Your task to perform on an android device: clear history in the chrome app Image 0: 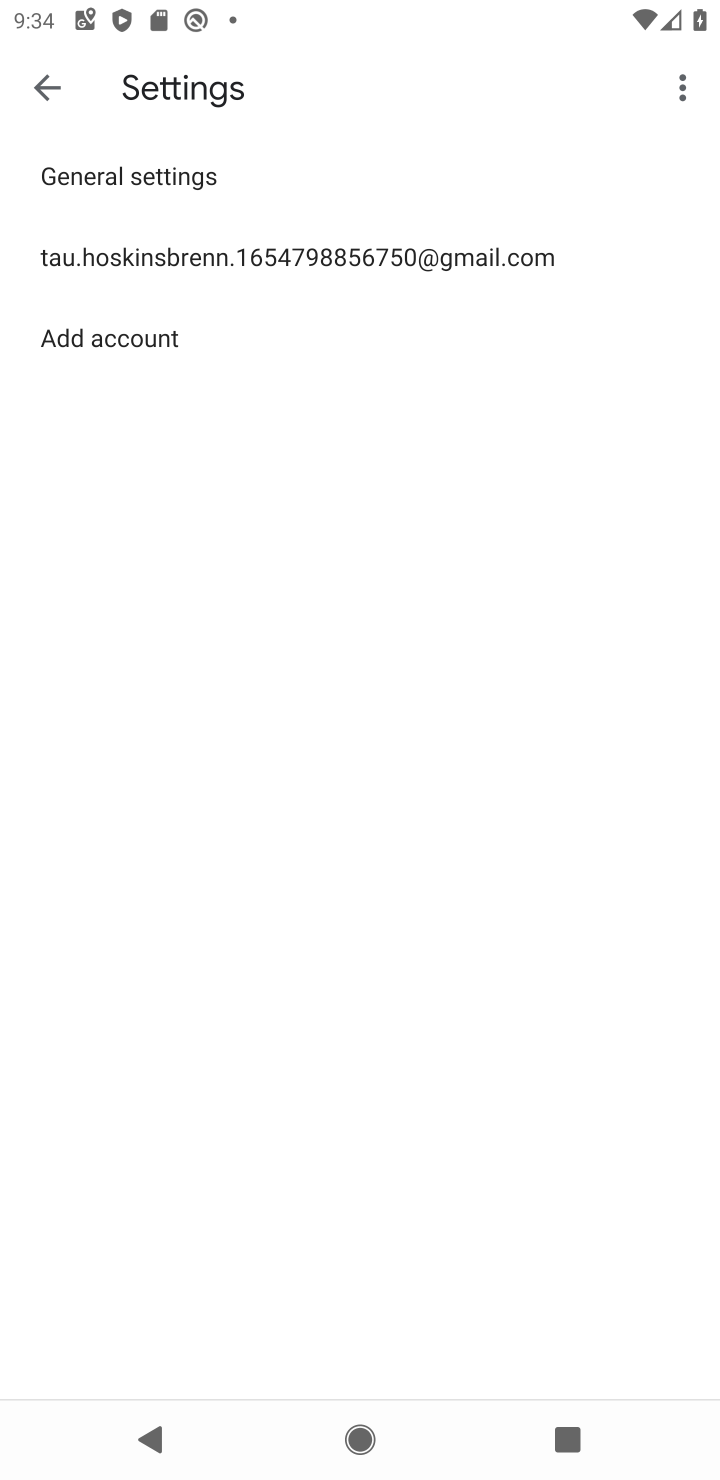
Step 0: press home button
Your task to perform on an android device: clear history in the chrome app Image 1: 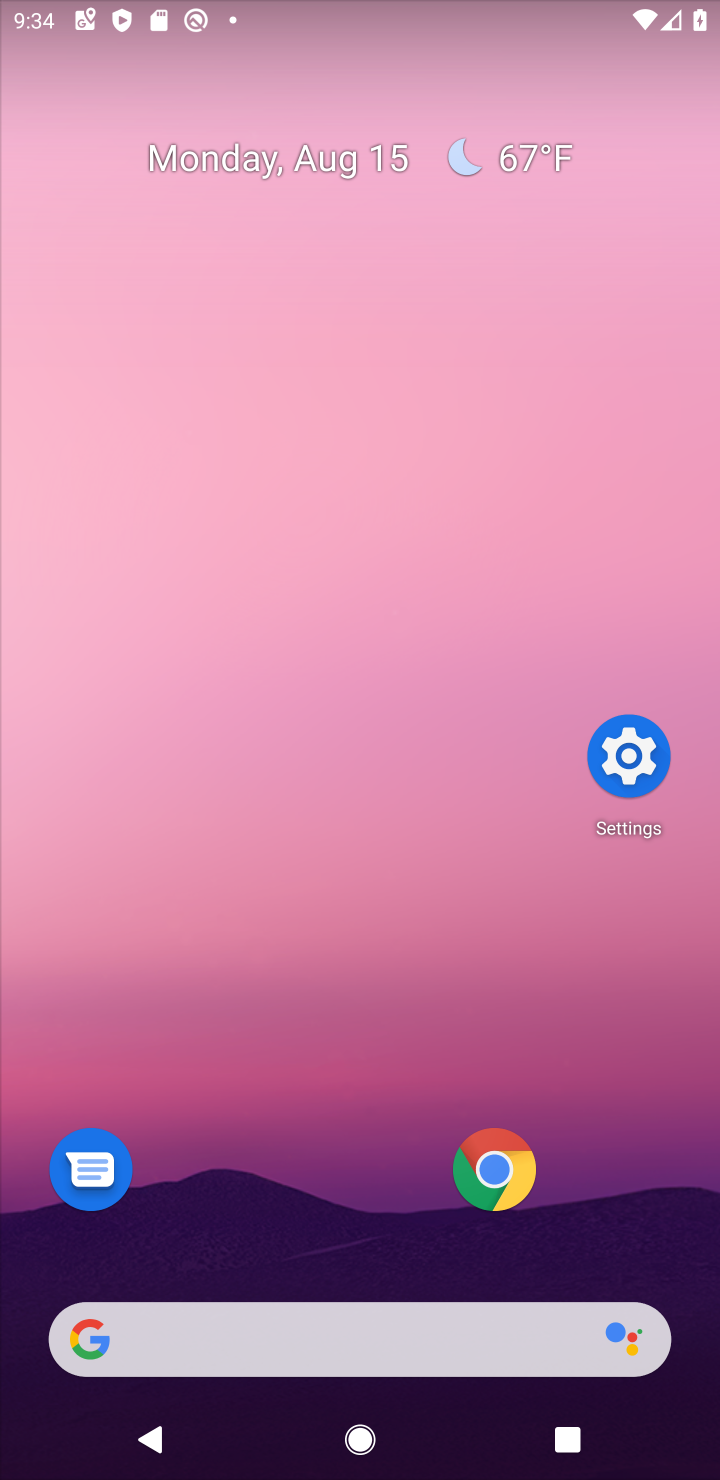
Step 1: click (485, 1159)
Your task to perform on an android device: clear history in the chrome app Image 2: 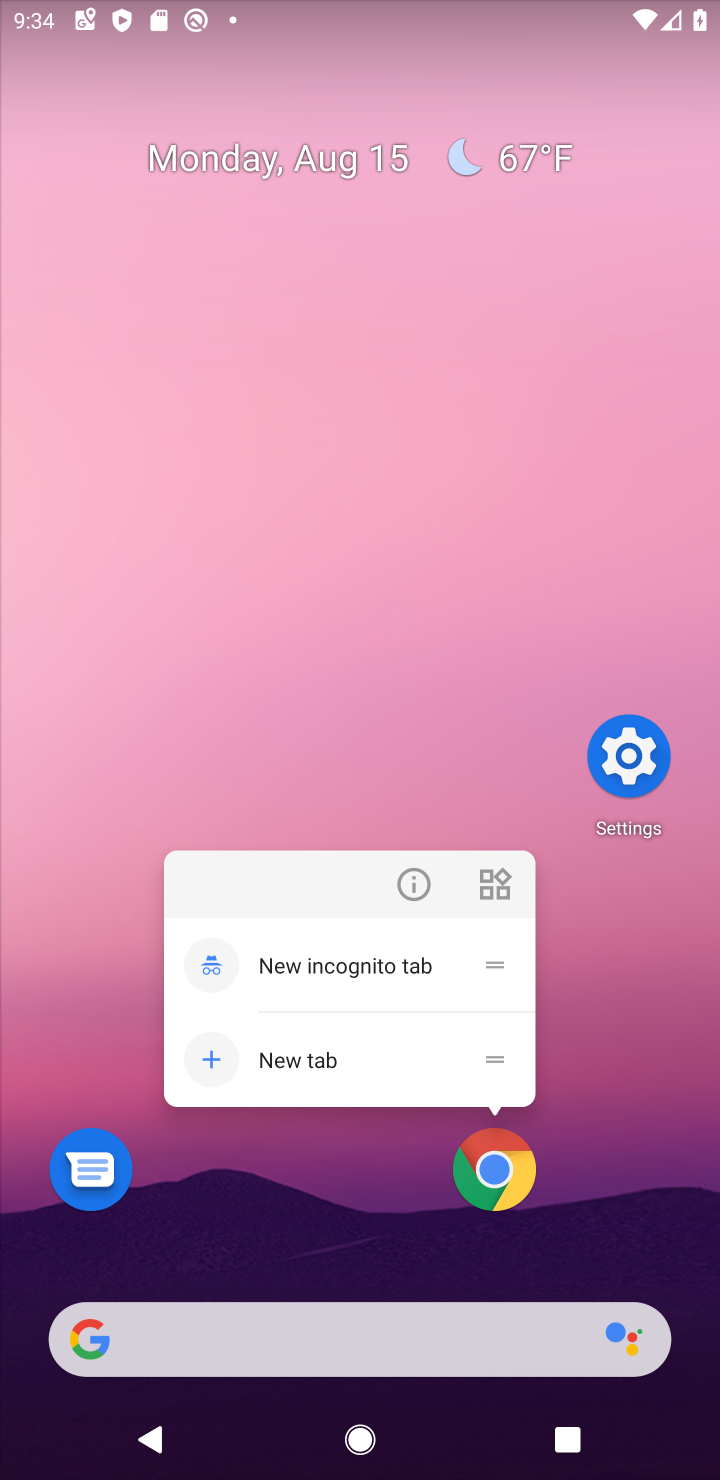
Step 2: click (492, 1163)
Your task to perform on an android device: clear history in the chrome app Image 3: 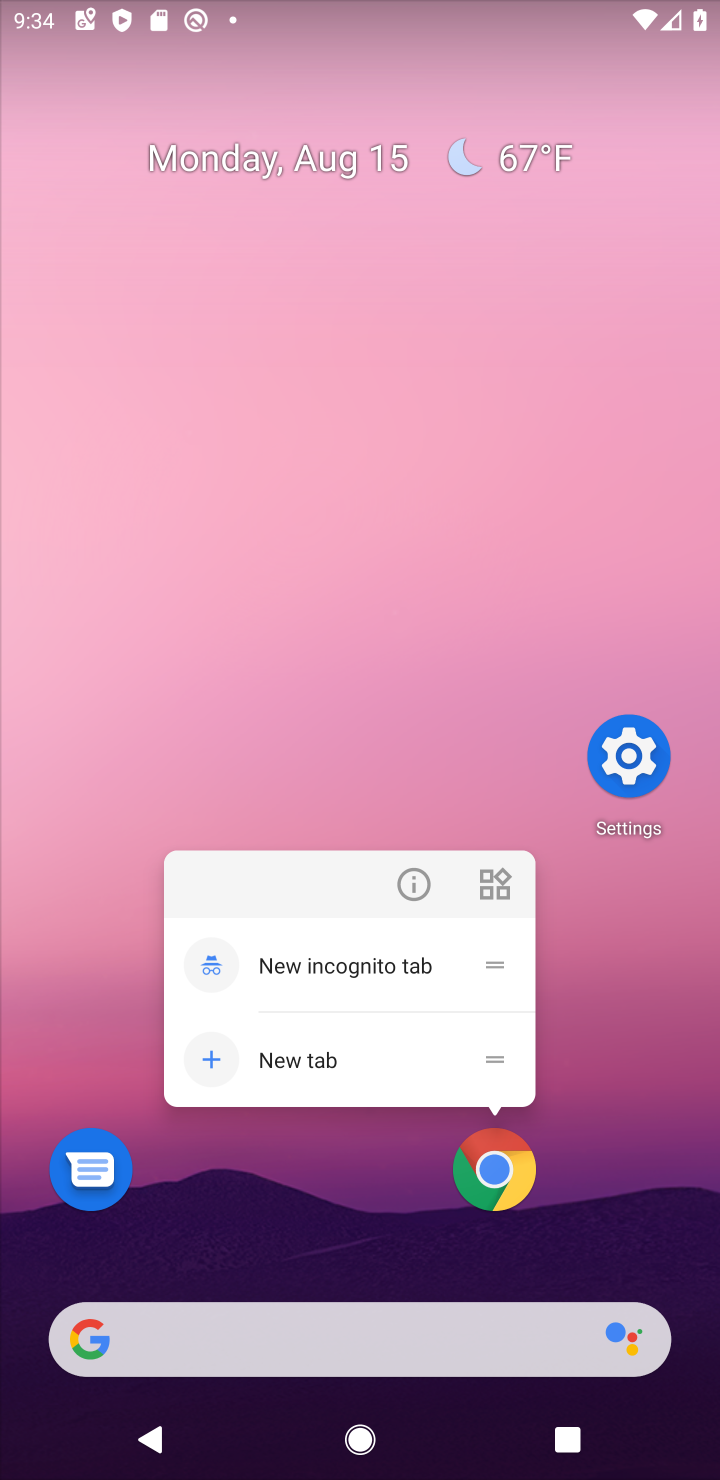
Step 3: click (492, 1160)
Your task to perform on an android device: clear history in the chrome app Image 4: 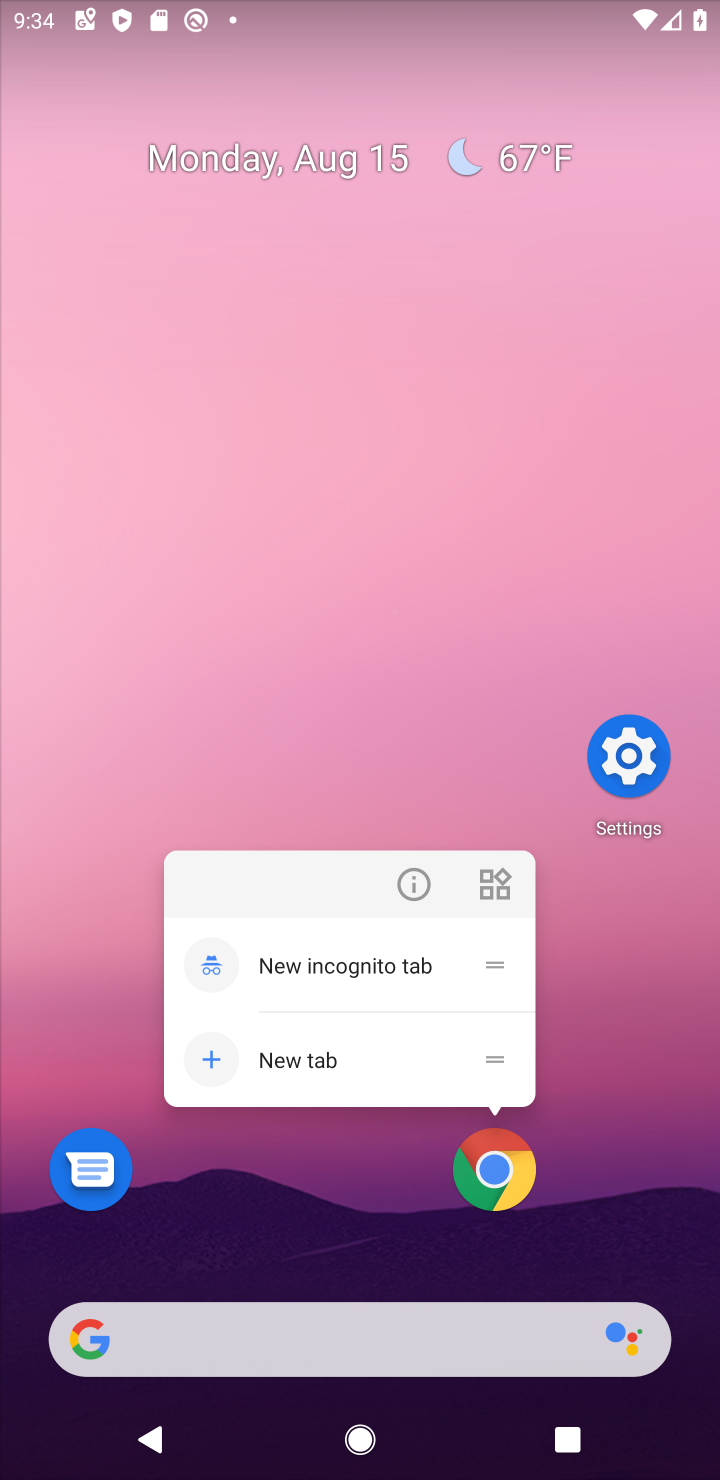
Step 4: click (492, 1163)
Your task to perform on an android device: clear history in the chrome app Image 5: 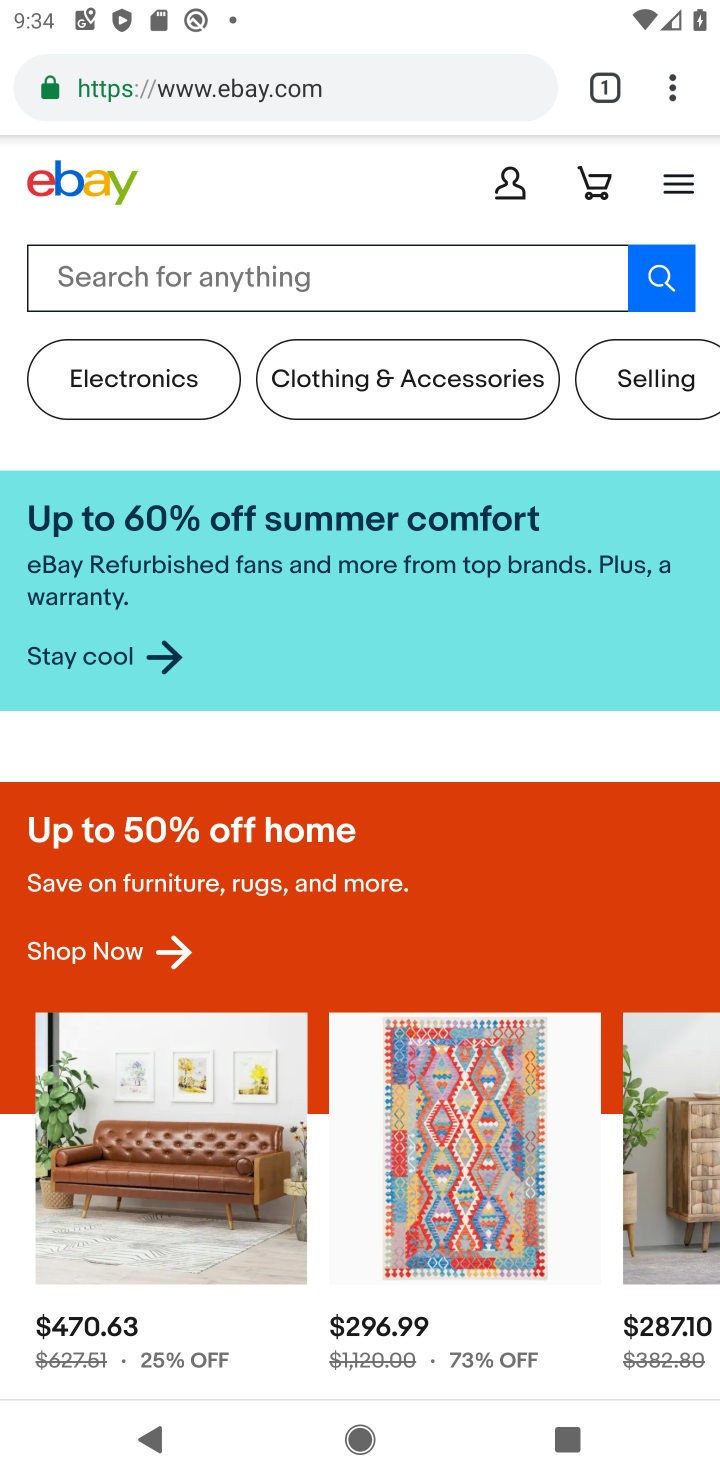
Step 5: drag from (676, 91) to (425, 485)
Your task to perform on an android device: clear history in the chrome app Image 6: 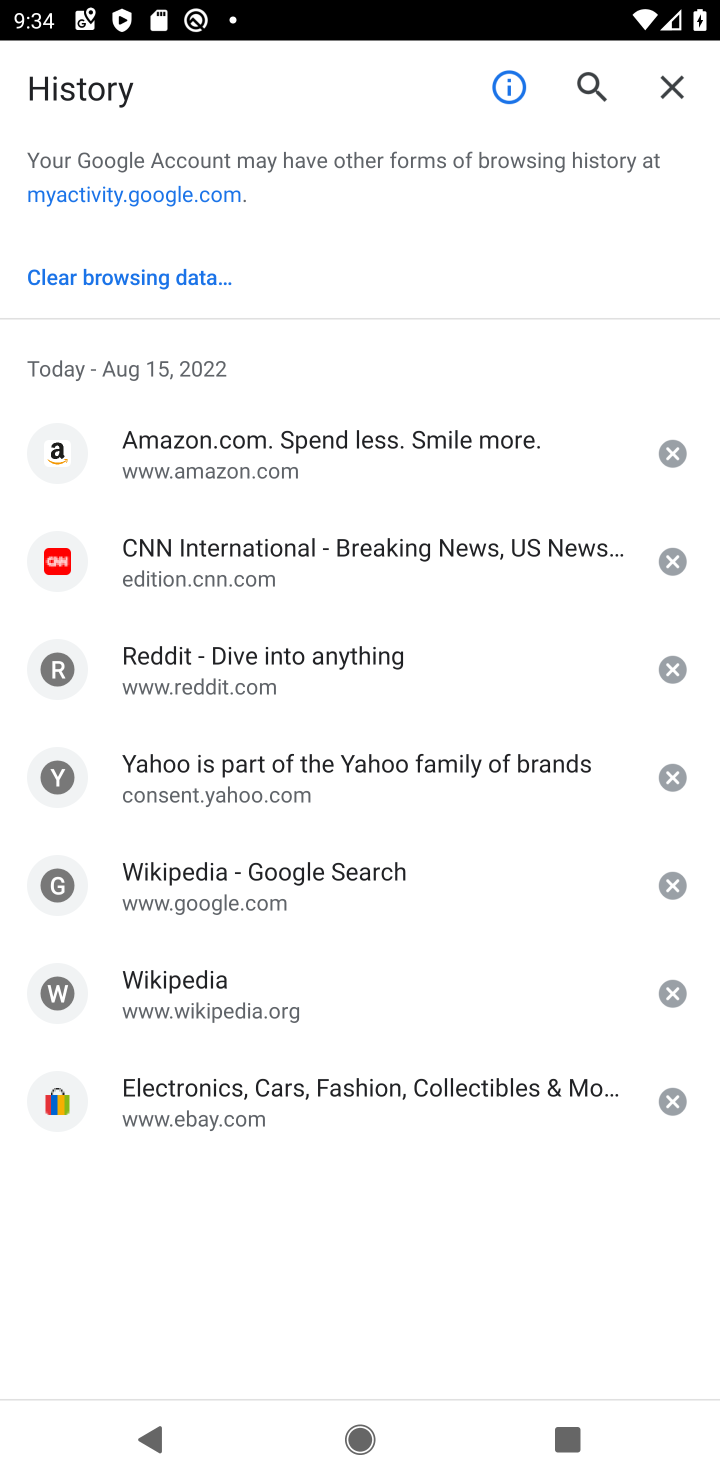
Step 6: click (110, 264)
Your task to perform on an android device: clear history in the chrome app Image 7: 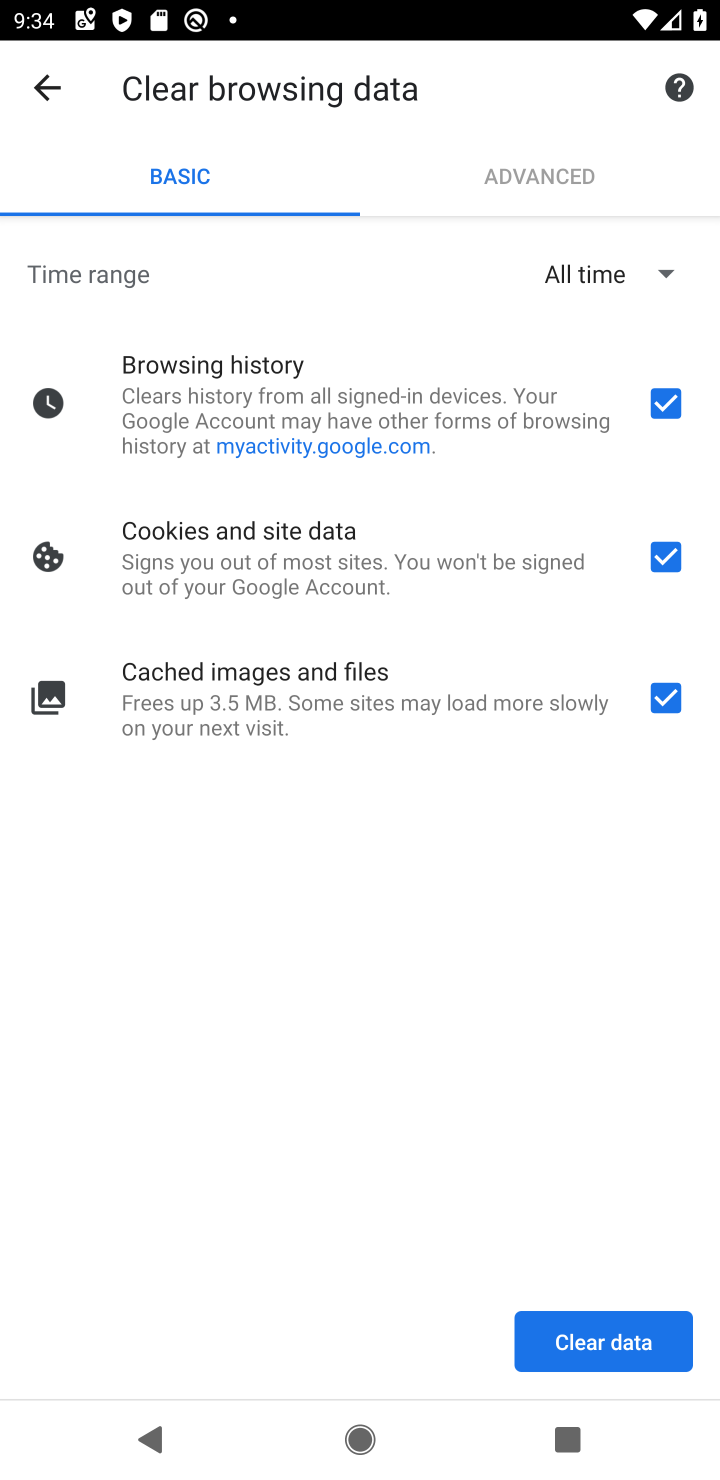
Step 7: click (609, 1350)
Your task to perform on an android device: clear history in the chrome app Image 8: 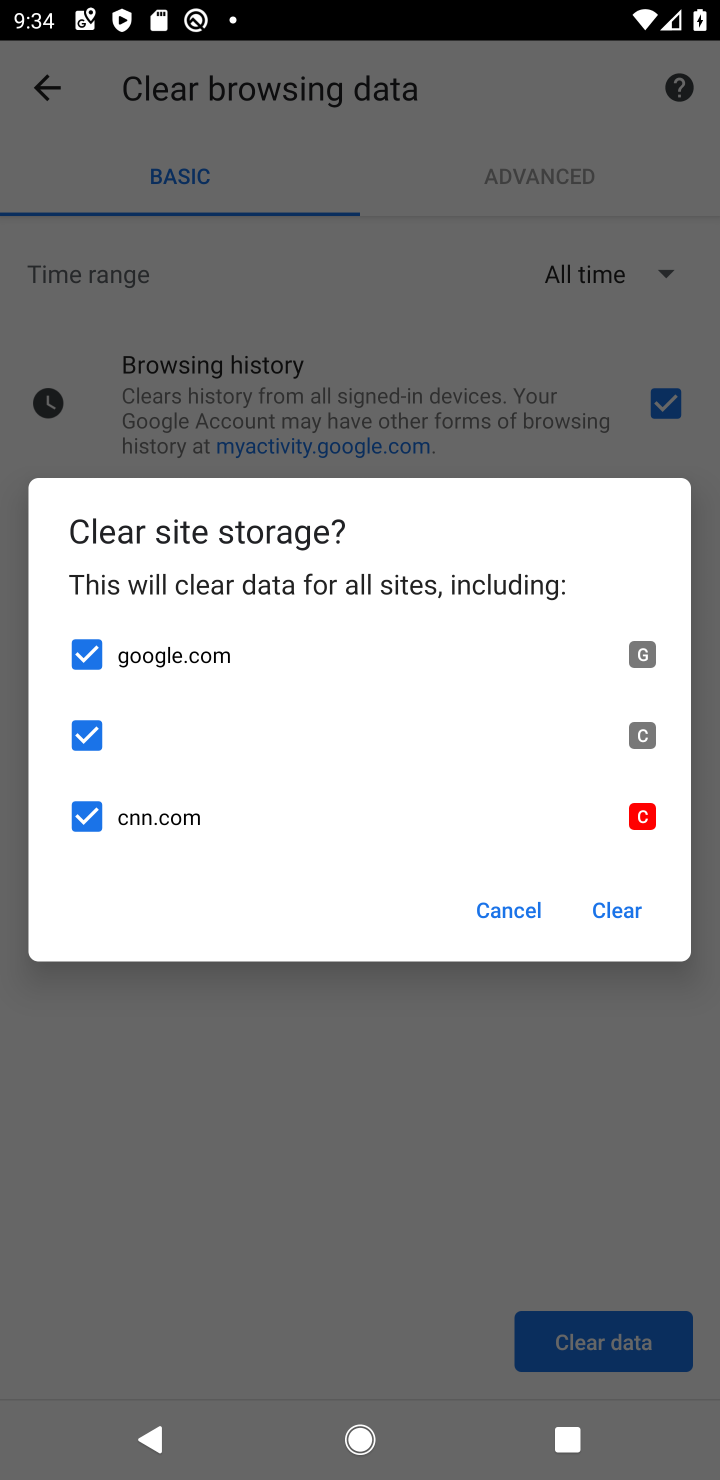
Step 8: click (619, 898)
Your task to perform on an android device: clear history in the chrome app Image 9: 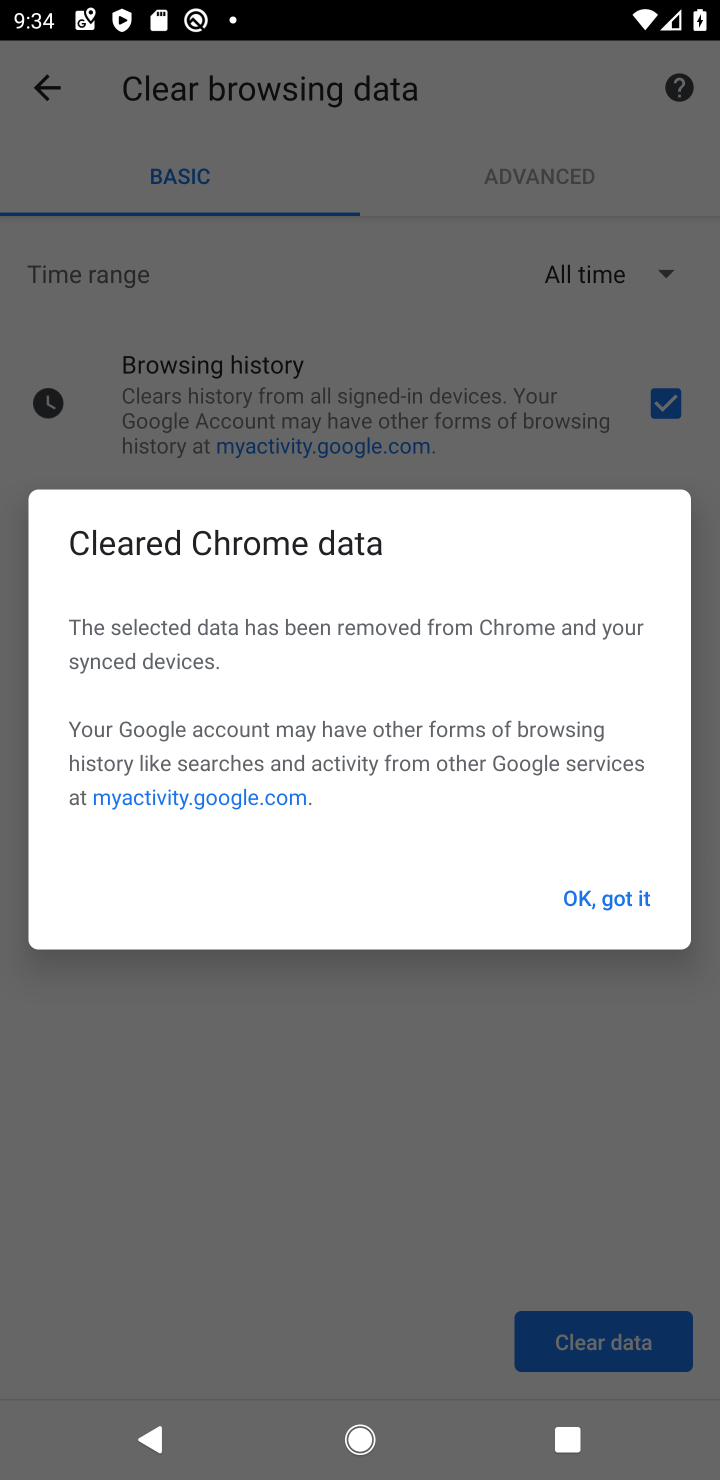
Step 9: click (604, 897)
Your task to perform on an android device: clear history in the chrome app Image 10: 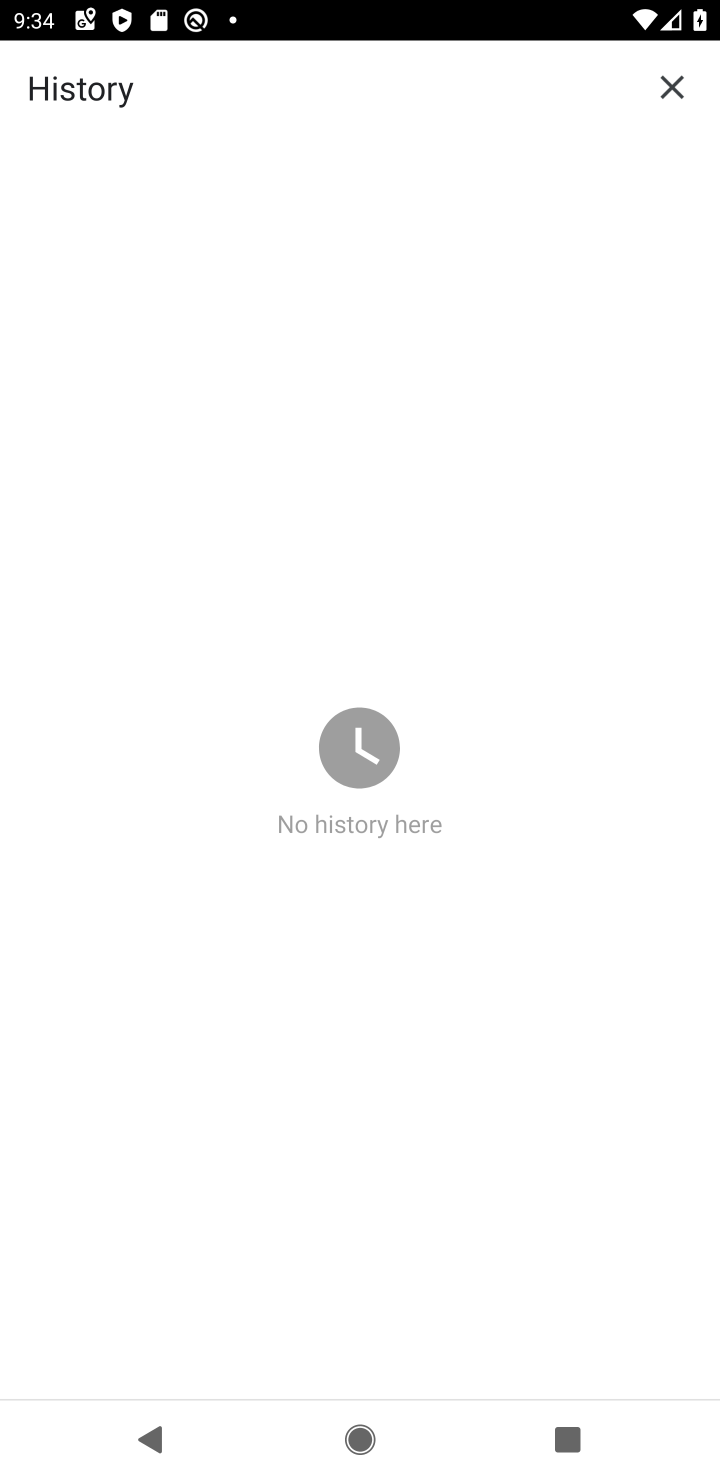
Step 10: task complete